Your task to perform on an android device: Check the news Image 0: 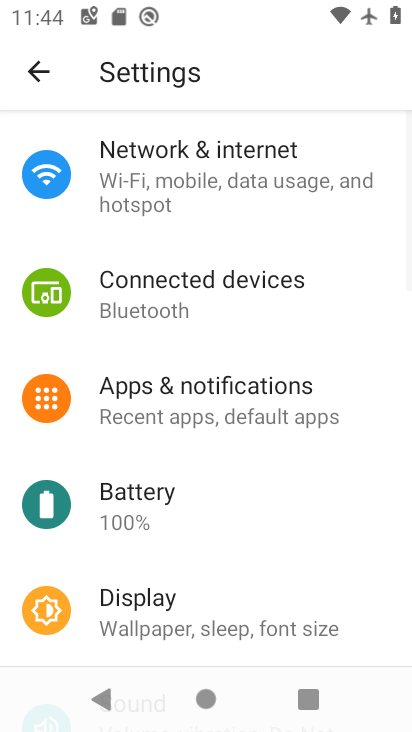
Step 0: drag from (255, 673) to (186, 89)
Your task to perform on an android device: Check the news Image 1: 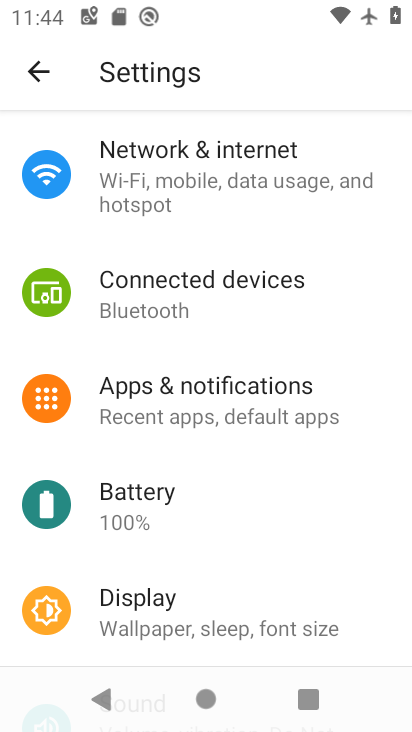
Step 1: press back button
Your task to perform on an android device: Check the news Image 2: 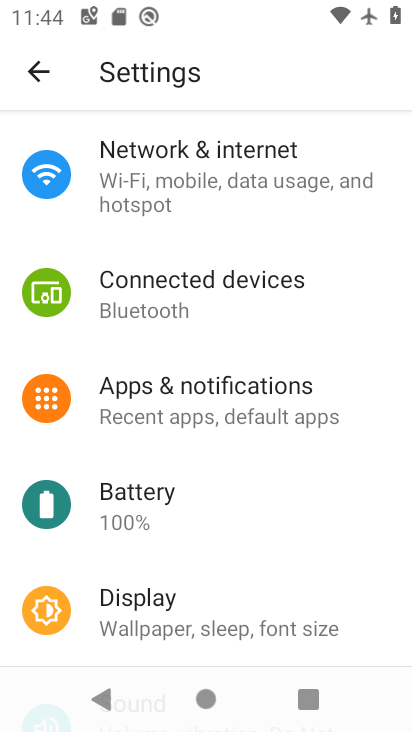
Step 2: press home button
Your task to perform on an android device: Check the news Image 3: 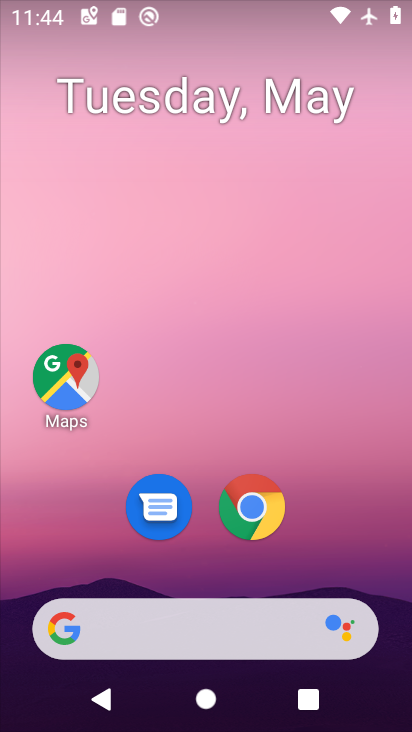
Step 3: press back button
Your task to perform on an android device: Check the news Image 4: 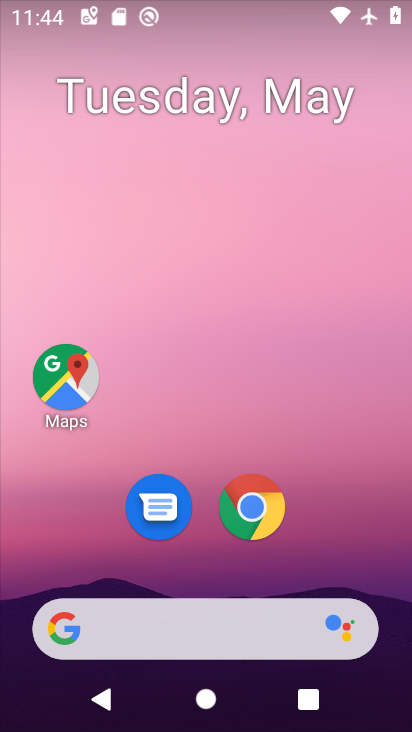
Step 4: drag from (10, 212) to (389, 416)
Your task to perform on an android device: Check the news Image 5: 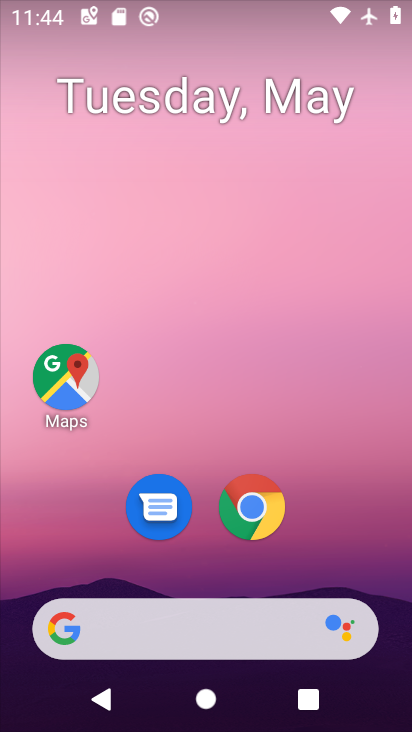
Step 5: drag from (29, 221) to (323, 465)
Your task to perform on an android device: Check the news Image 6: 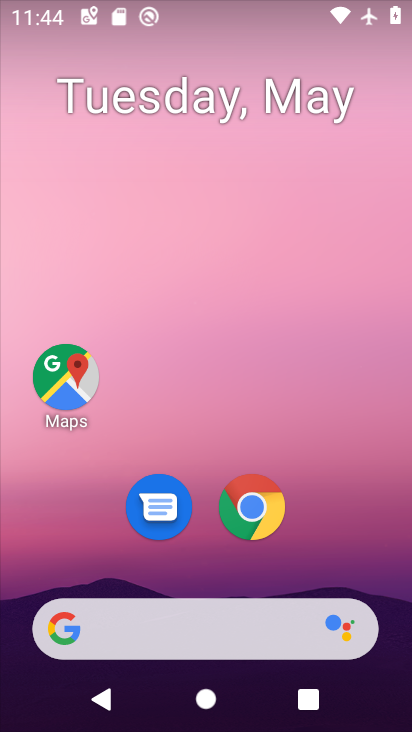
Step 6: click (396, 429)
Your task to perform on an android device: Check the news Image 7: 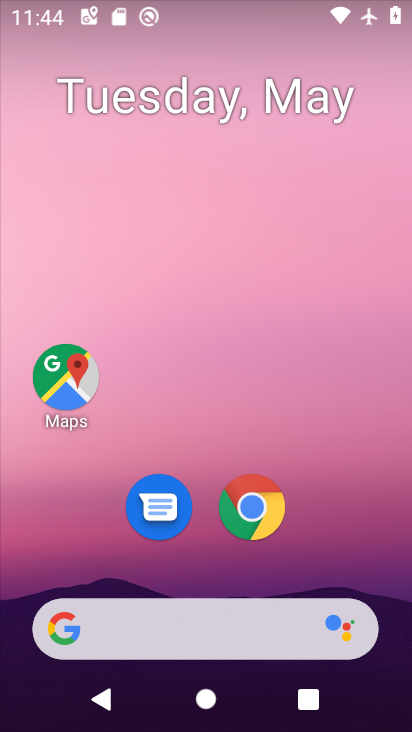
Step 7: click (408, 343)
Your task to perform on an android device: Check the news Image 8: 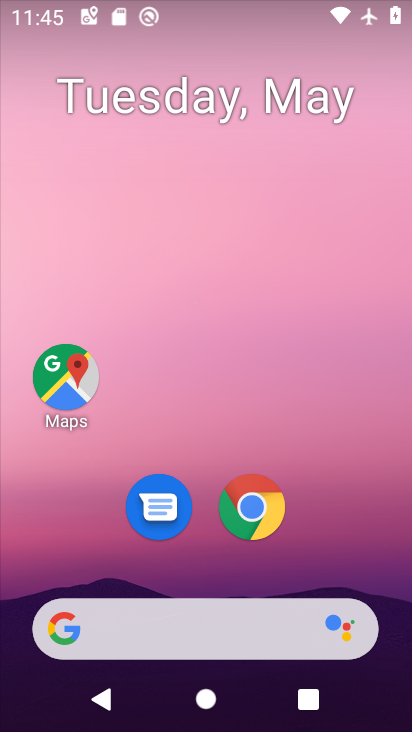
Step 8: click (376, 371)
Your task to perform on an android device: Check the news Image 9: 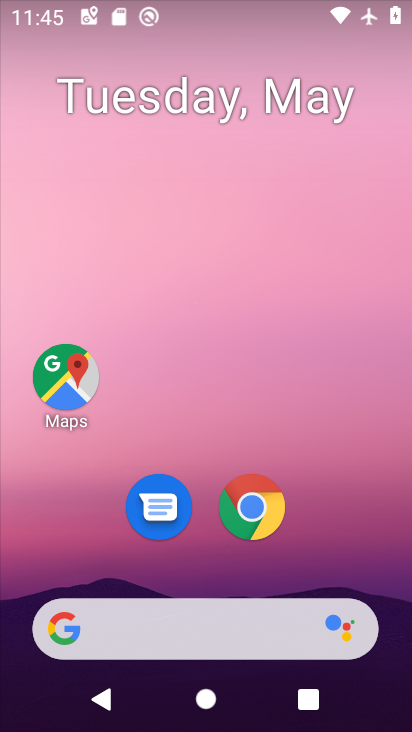
Step 9: click (385, 346)
Your task to perform on an android device: Check the news Image 10: 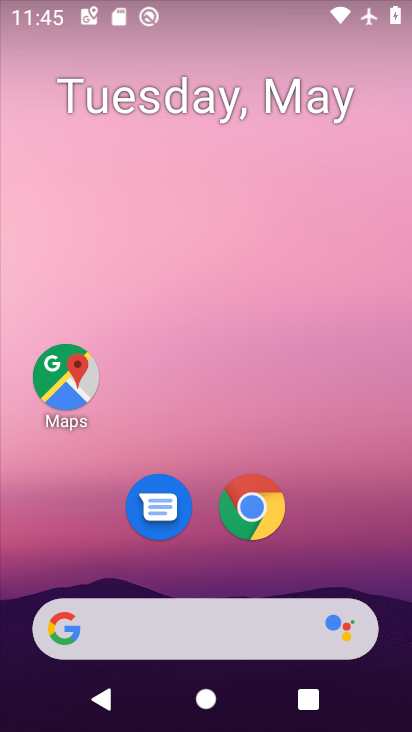
Step 10: drag from (20, 122) to (325, 468)
Your task to perform on an android device: Check the news Image 11: 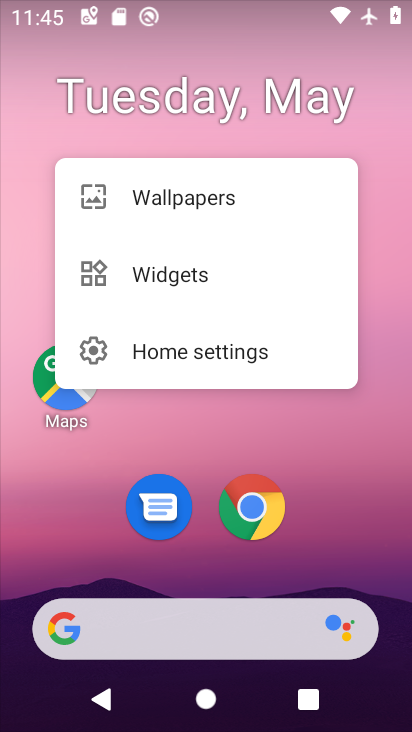
Step 11: click (402, 422)
Your task to perform on an android device: Check the news Image 12: 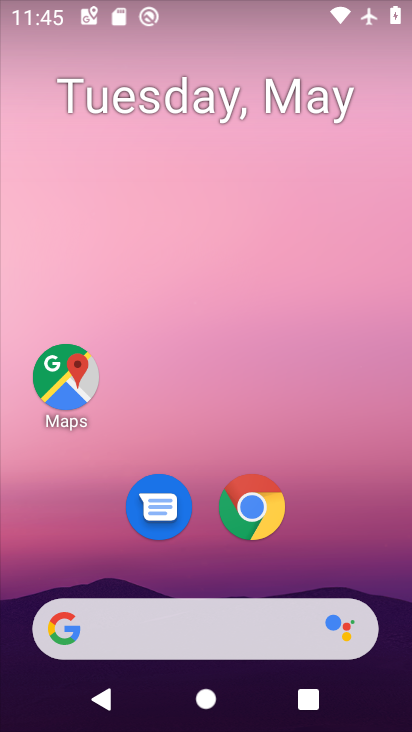
Step 12: drag from (405, 423) to (376, 368)
Your task to perform on an android device: Check the news Image 13: 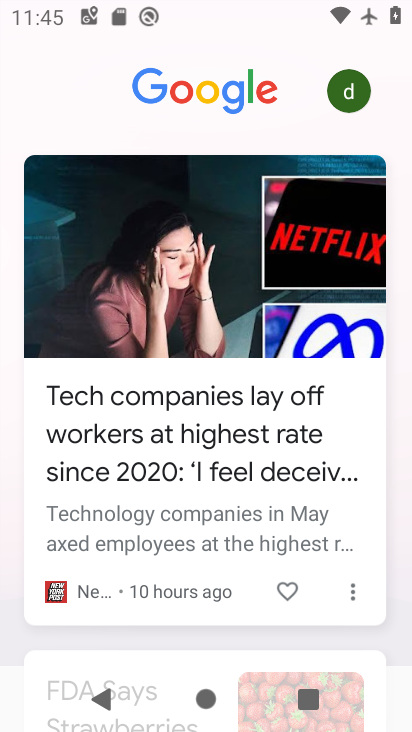
Step 13: drag from (87, 187) to (367, 433)
Your task to perform on an android device: Check the news Image 14: 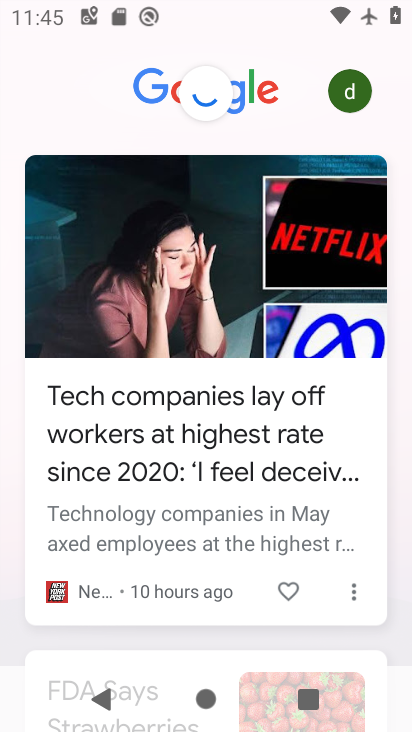
Step 14: drag from (157, 161) to (395, 461)
Your task to perform on an android device: Check the news Image 15: 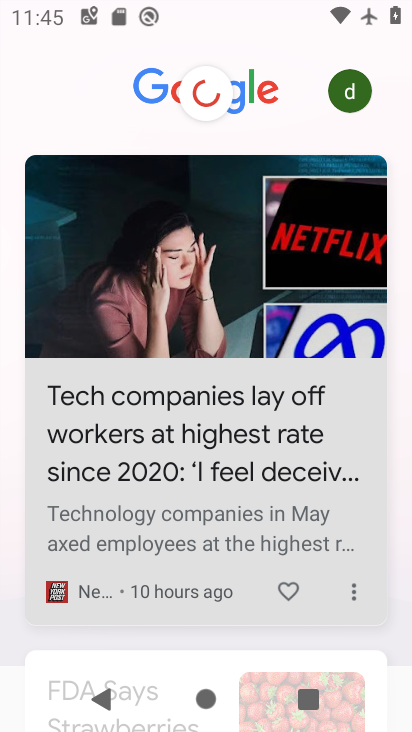
Step 15: click (402, 580)
Your task to perform on an android device: Check the news Image 16: 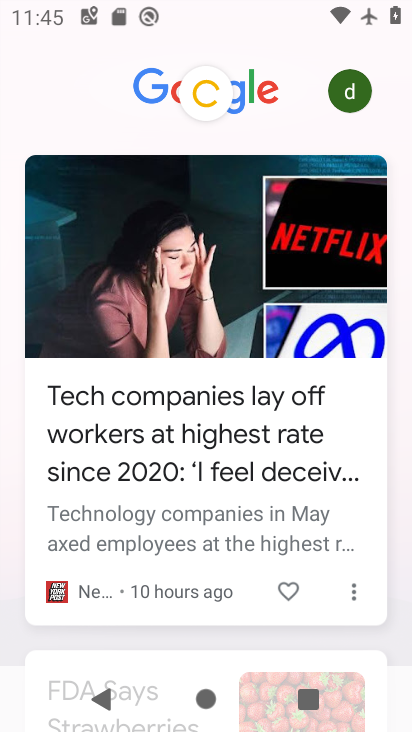
Step 16: drag from (345, 426) to (357, 514)
Your task to perform on an android device: Check the news Image 17: 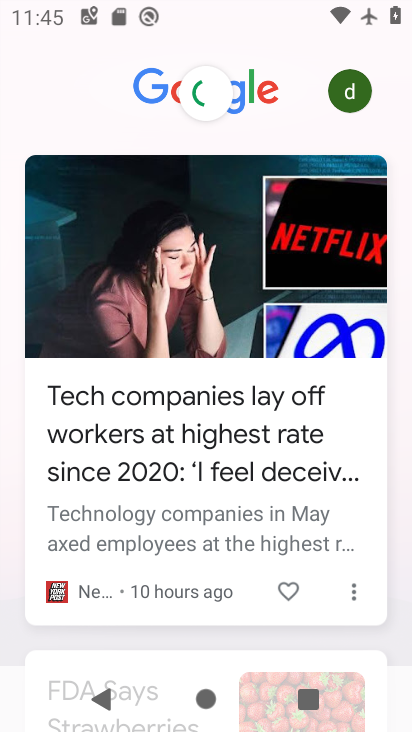
Step 17: click (359, 346)
Your task to perform on an android device: Check the news Image 18: 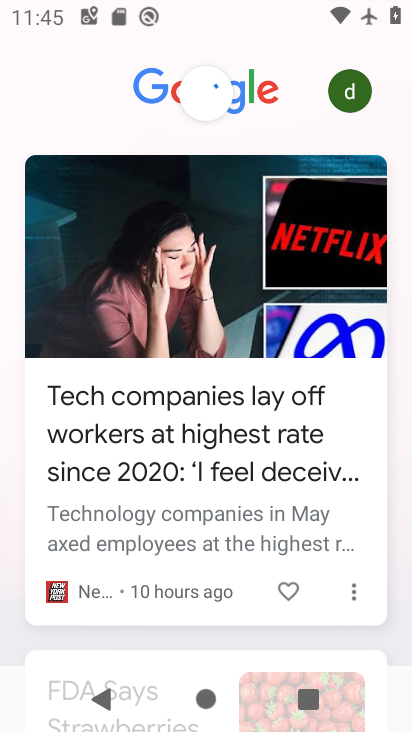
Step 18: drag from (350, 411) to (391, 391)
Your task to perform on an android device: Check the news Image 19: 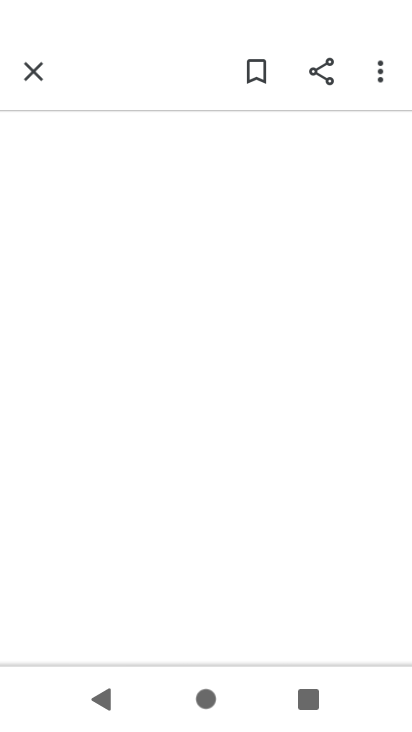
Step 19: click (394, 366)
Your task to perform on an android device: Check the news Image 20: 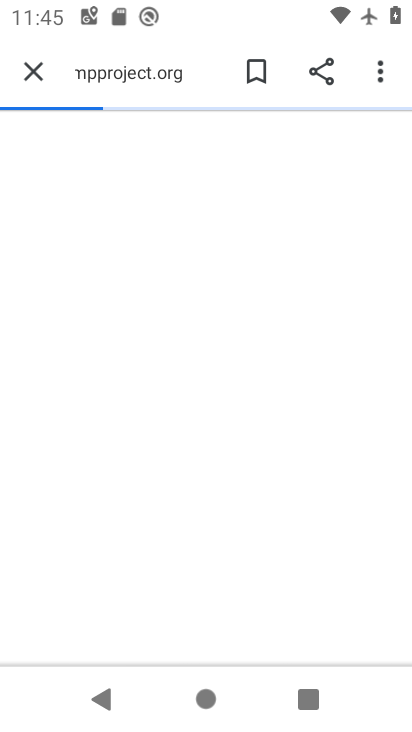
Step 20: task complete